Your task to perform on an android device: Check the weather Image 0: 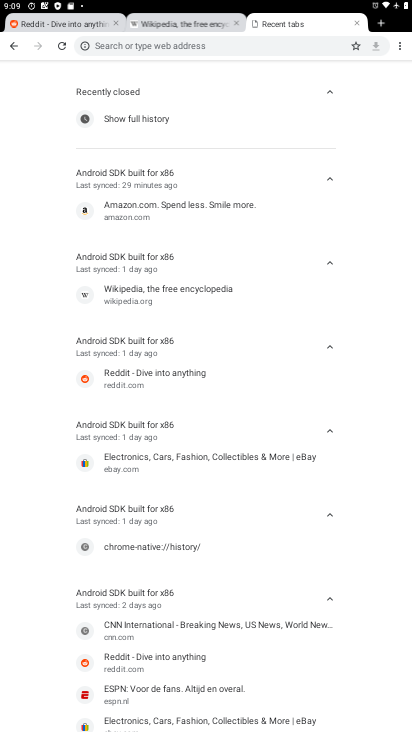
Step 0: press home button
Your task to perform on an android device: Check the weather Image 1: 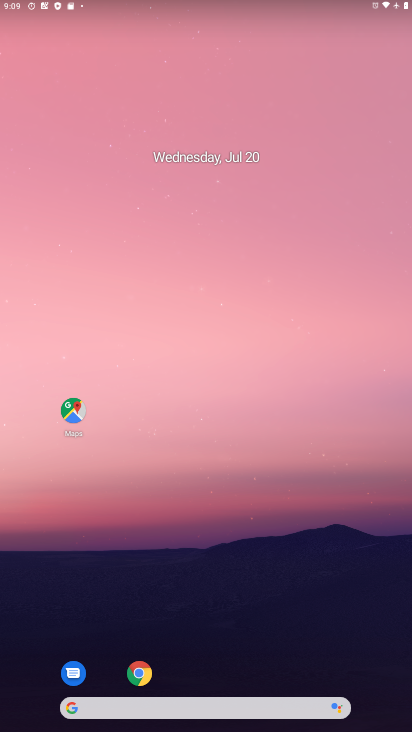
Step 1: drag from (211, 681) to (179, 92)
Your task to perform on an android device: Check the weather Image 2: 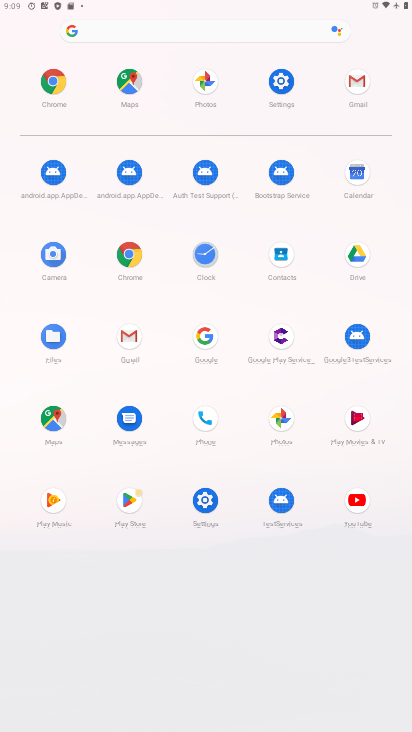
Step 2: click (203, 339)
Your task to perform on an android device: Check the weather Image 3: 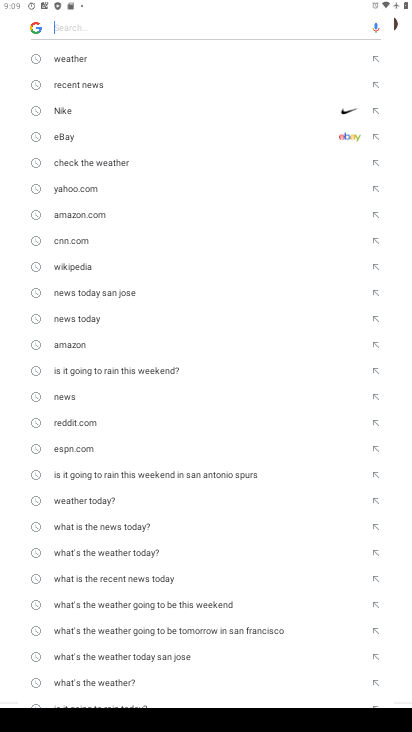
Step 3: click (70, 54)
Your task to perform on an android device: Check the weather Image 4: 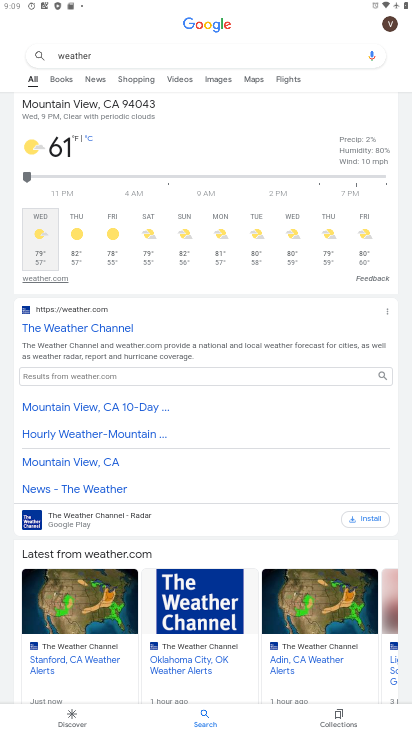
Step 4: task complete